Your task to perform on an android device: turn on the 12-hour format for clock Image 0: 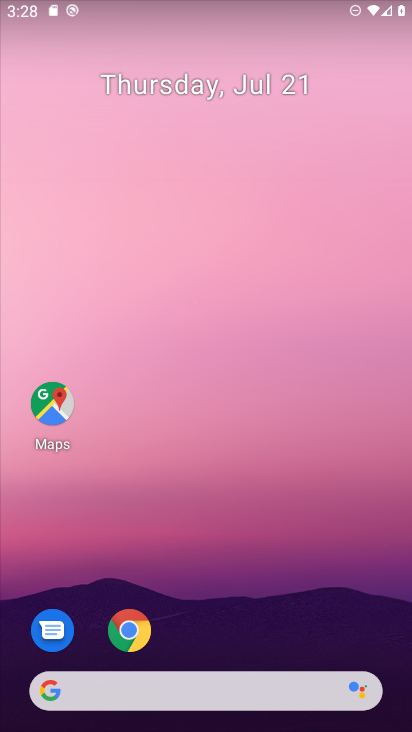
Step 0: drag from (216, 623) to (296, 20)
Your task to perform on an android device: turn on the 12-hour format for clock Image 1: 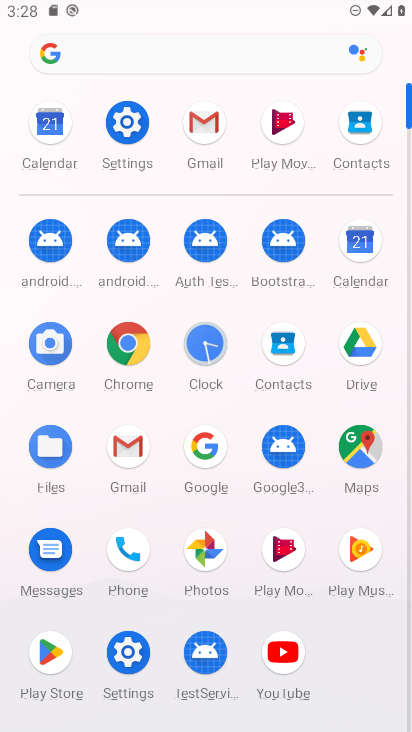
Step 1: click (202, 341)
Your task to perform on an android device: turn on the 12-hour format for clock Image 2: 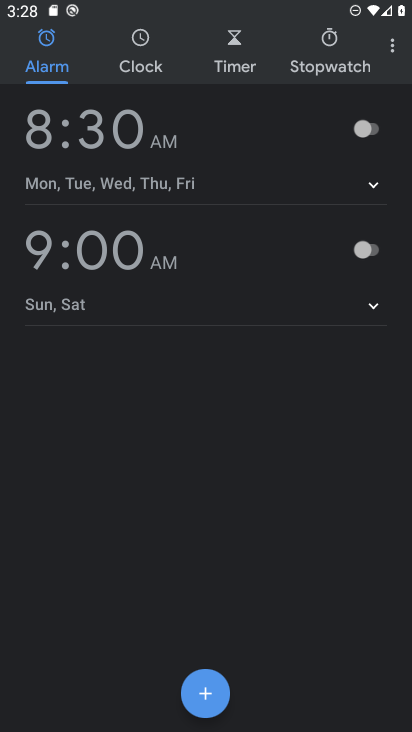
Step 2: click (397, 44)
Your task to perform on an android device: turn on the 12-hour format for clock Image 3: 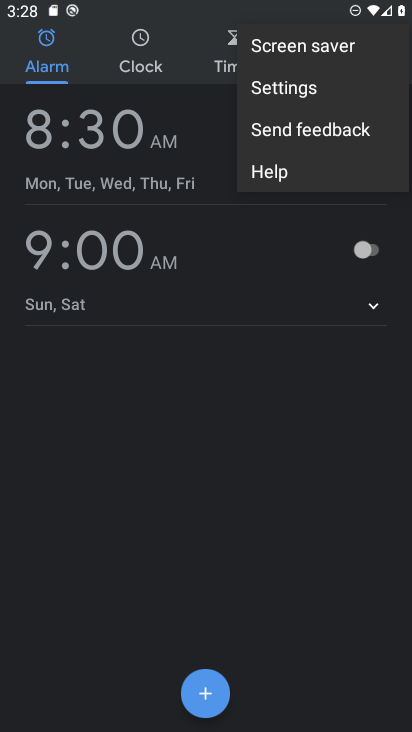
Step 3: click (301, 101)
Your task to perform on an android device: turn on the 12-hour format for clock Image 4: 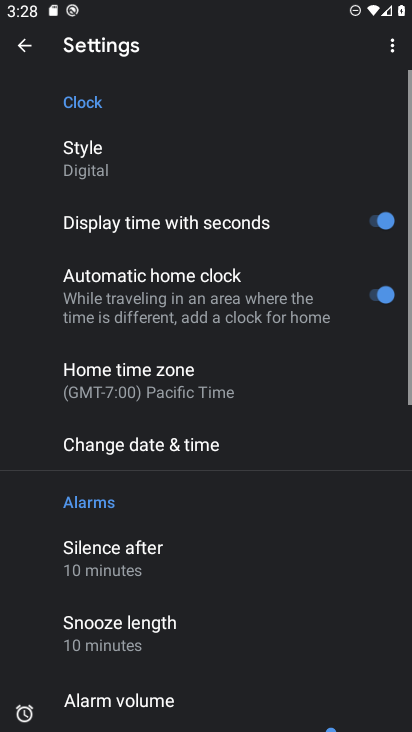
Step 4: click (158, 443)
Your task to perform on an android device: turn on the 12-hour format for clock Image 5: 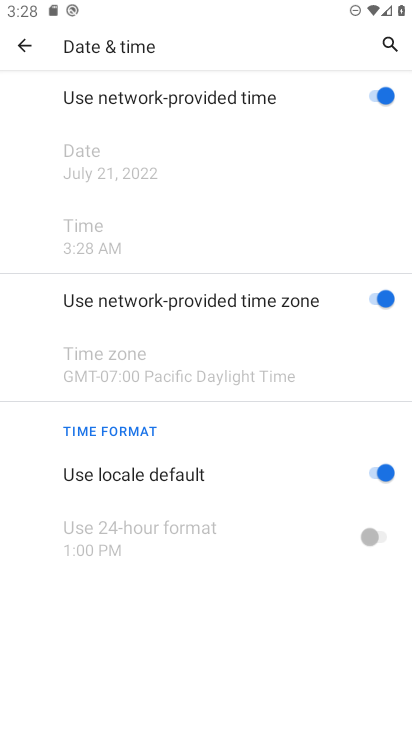
Step 5: task complete